Your task to perform on an android device: Clear the shopping cart on ebay.com. Search for lenovo thinkpad on ebay.com, select the first entry, add it to the cart, then select checkout. Image 0: 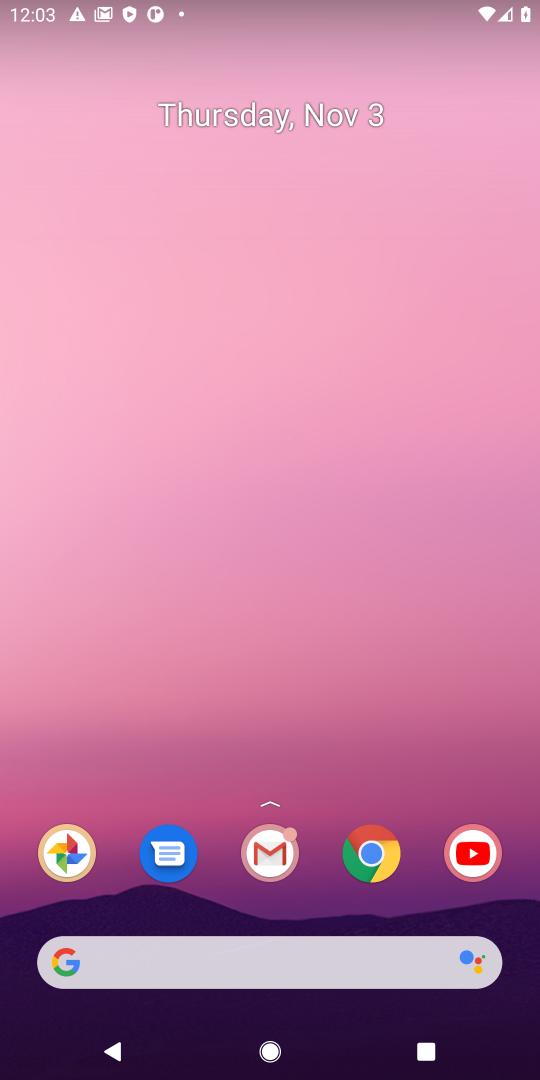
Step 0: click (374, 866)
Your task to perform on an android device: Clear the shopping cart on ebay.com. Search for lenovo thinkpad on ebay.com, select the first entry, add it to the cart, then select checkout. Image 1: 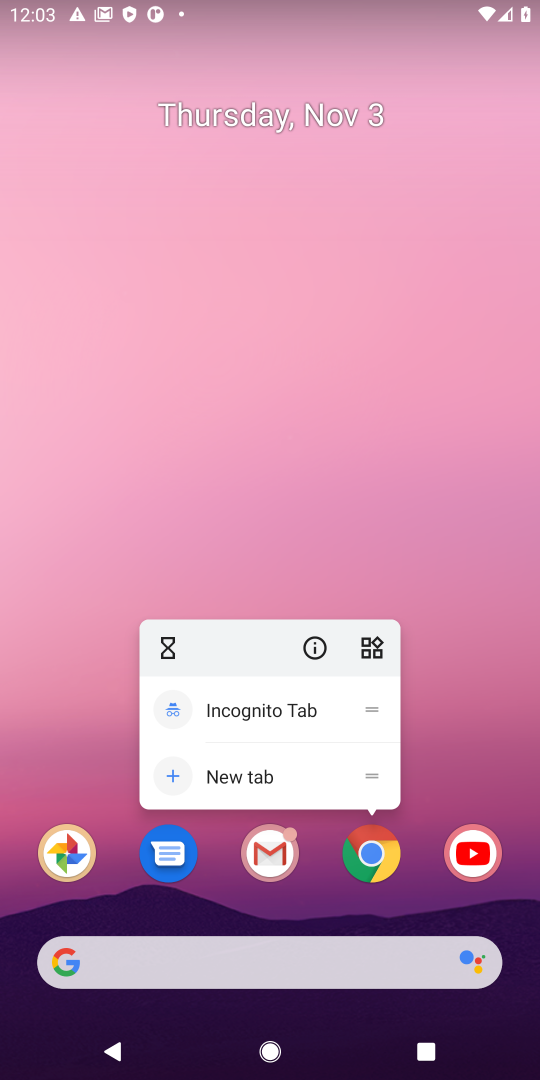
Step 1: click (381, 863)
Your task to perform on an android device: Clear the shopping cart on ebay.com. Search for lenovo thinkpad on ebay.com, select the first entry, add it to the cart, then select checkout. Image 2: 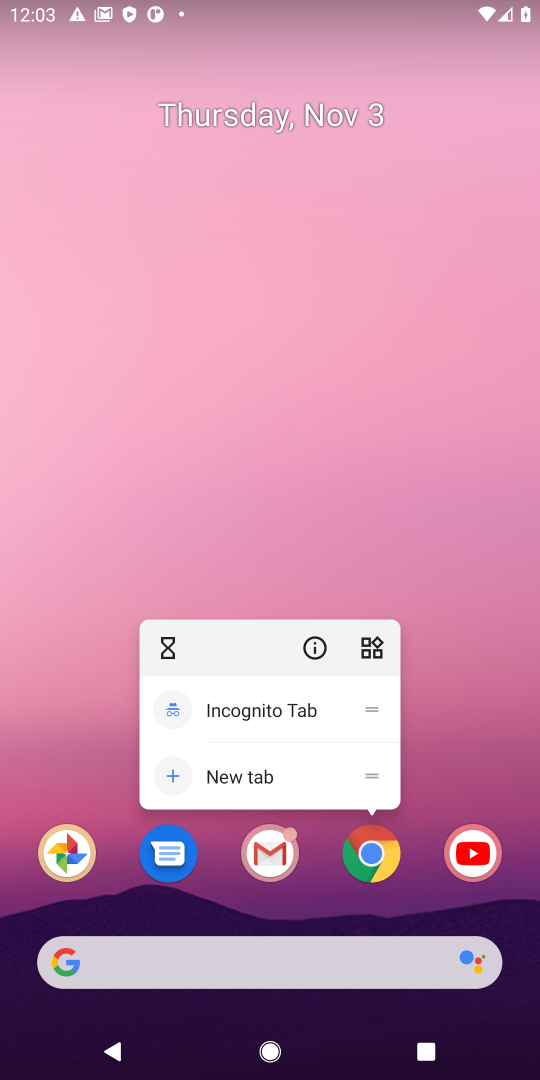
Step 2: click (368, 853)
Your task to perform on an android device: Clear the shopping cart on ebay.com. Search for lenovo thinkpad on ebay.com, select the first entry, add it to the cart, then select checkout. Image 3: 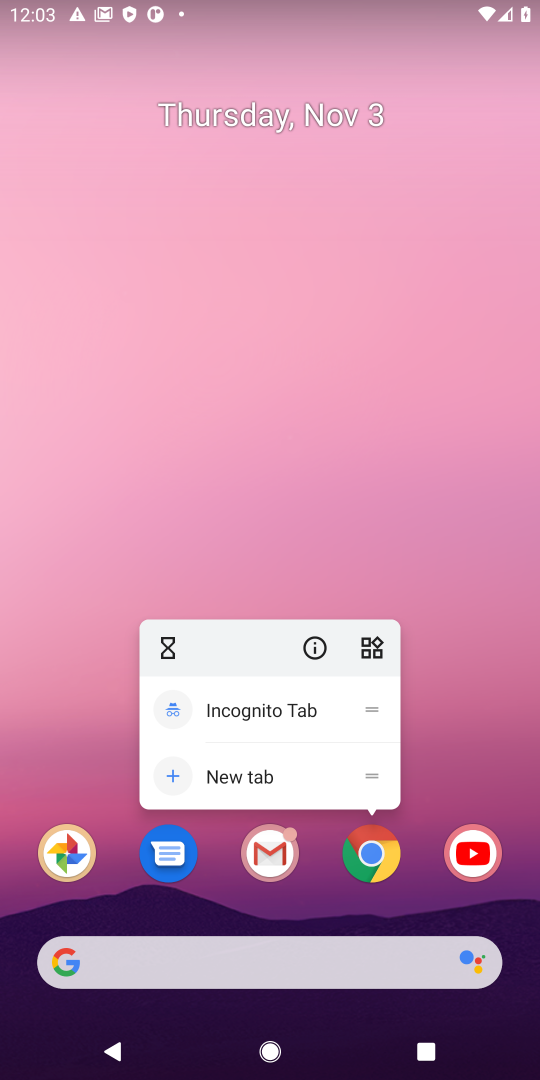
Step 3: click (368, 853)
Your task to perform on an android device: Clear the shopping cart on ebay.com. Search for lenovo thinkpad on ebay.com, select the first entry, add it to the cart, then select checkout. Image 4: 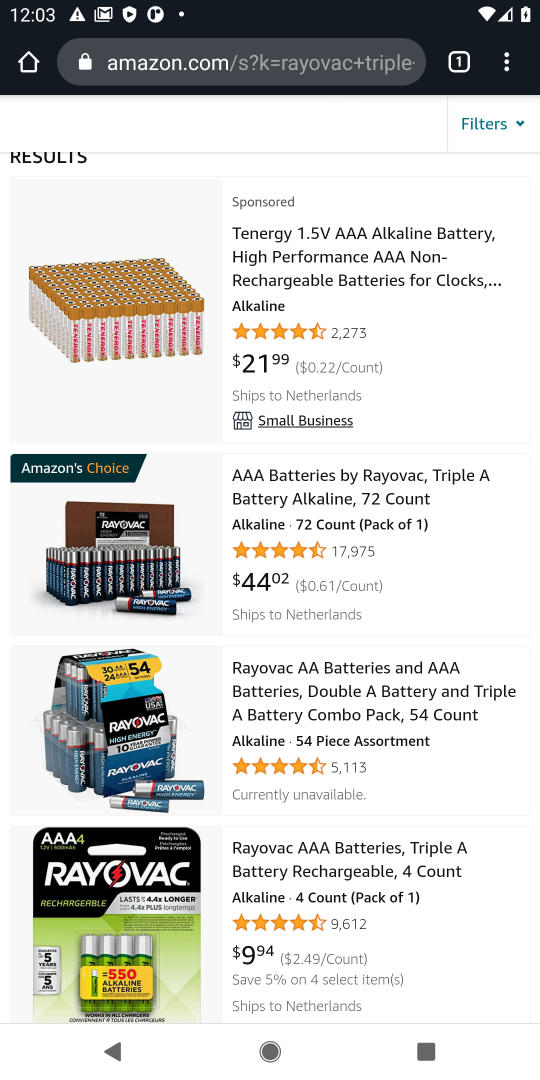
Step 4: click (276, 61)
Your task to perform on an android device: Clear the shopping cart on ebay.com. Search for lenovo thinkpad on ebay.com, select the first entry, add it to the cart, then select checkout. Image 5: 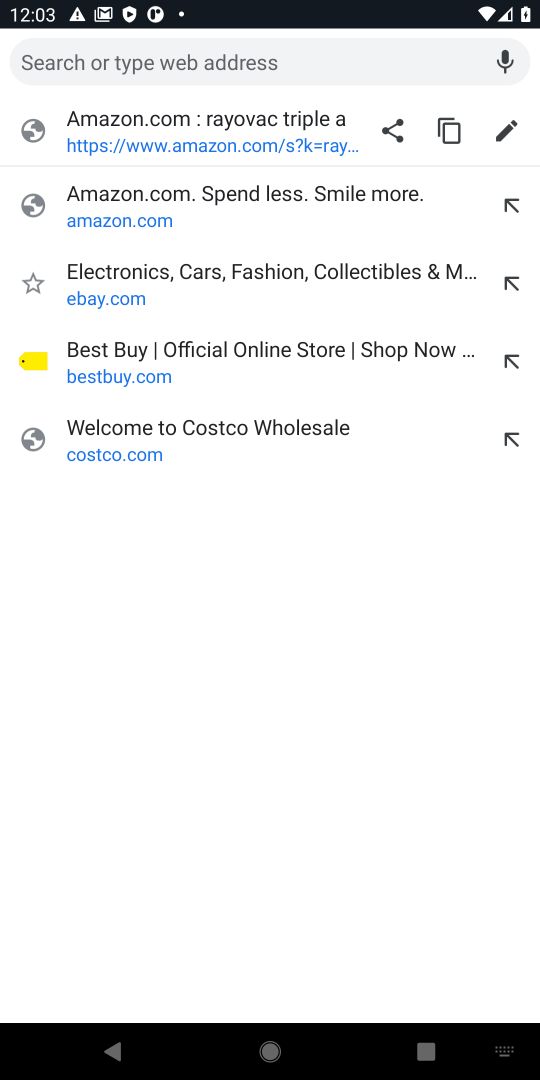
Step 5: click (81, 297)
Your task to perform on an android device: Clear the shopping cart on ebay.com. Search for lenovo thinkpad on ebay.com, select the first entry, add it to the cart, then select checkout. Image 6: 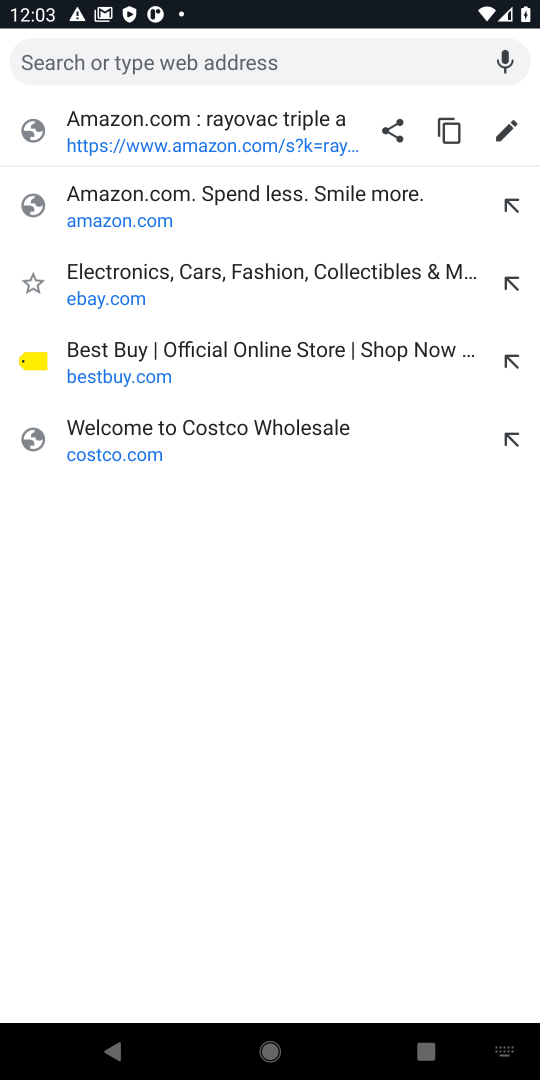
Step 6: click (110, 297)
Your task to perform on an android device: Clear the shopping cart on ebay.com. Search for lenovo thinkpad on ebay.com, select the first entry, add it to the cart, then select checkout. Image 7: 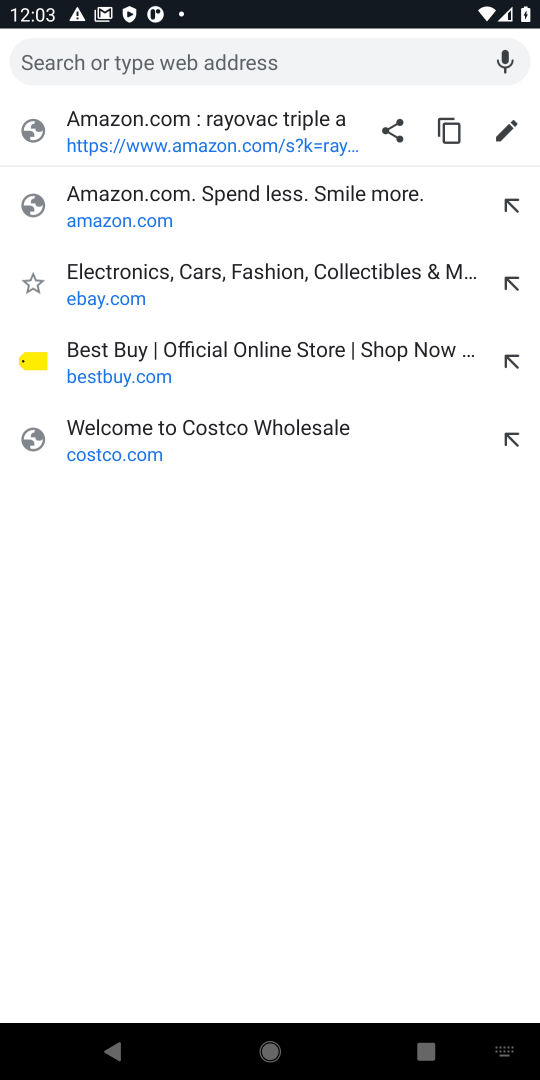
Step 7: click (105, 296)
Your task to perform on an android device: Clear the shopping cart on ebay.com. Search for lenovo thinkpad on ebay.com, select the first entry, add it to the cart, then select checkout. Image 8: 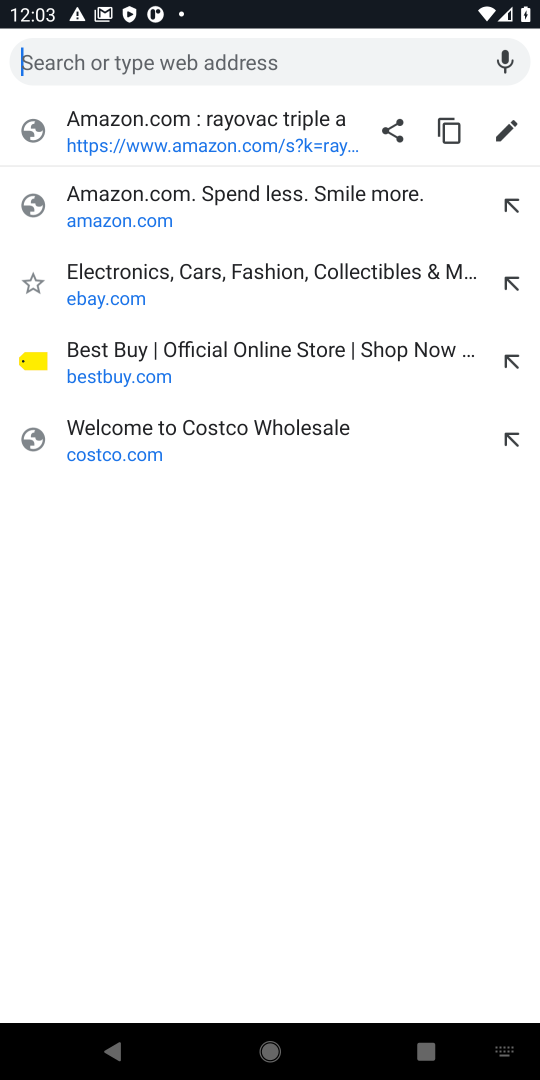
Step 8: click (106, 289)
Your task to perform on an android device: Clear the shopping cart on ebay.com. Search for lenovo thinkpad on ebay.com, select the first entry, add it to the cart, then select checkout. Image 9: 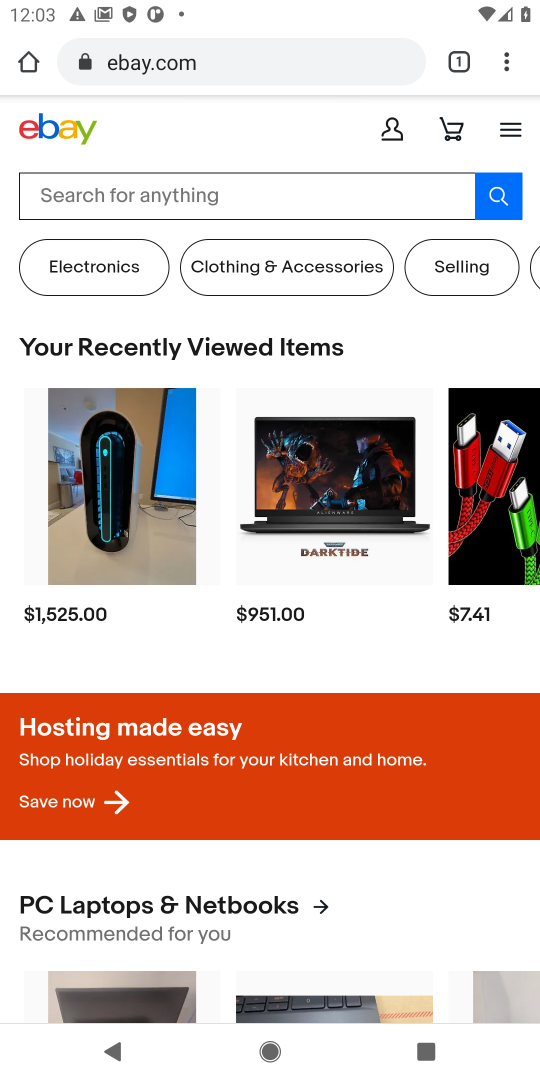
Step 9: click (181, 194)
Your task to perform on an android device: Clear the shopping cart on ebay.com. Search for lenovo thinkpad on ebay.com, select the first entry, add it to the cart, then select checkout. Image 10: 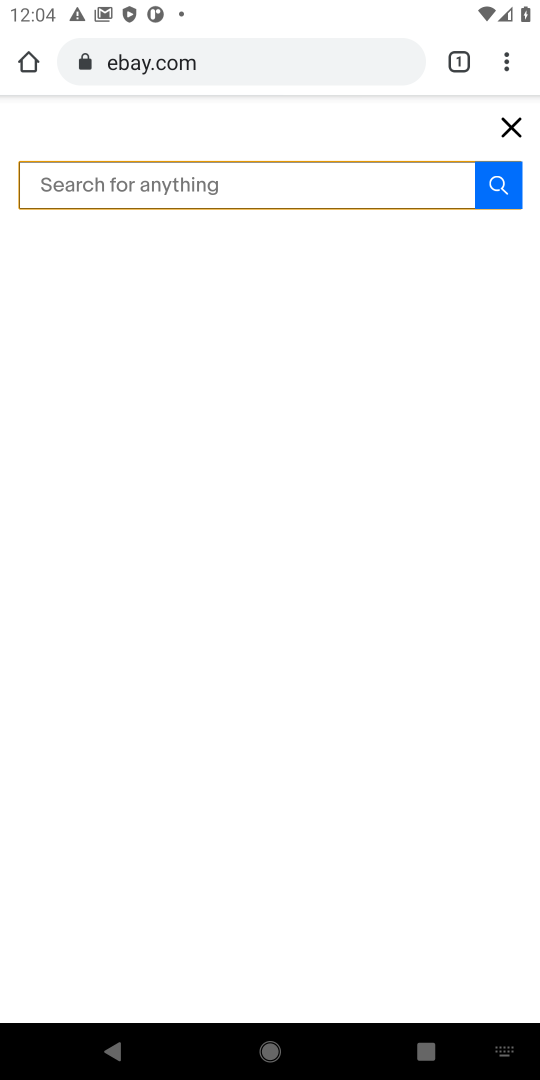
Step 10: type "lenovo thinkpad"
Your task to perform on an android device: Clear the shopping cart on ebay.com. Search for lenovo thinkpad on ebay.com, select the first entry, add it to the cart, then select checkout. Image 11: 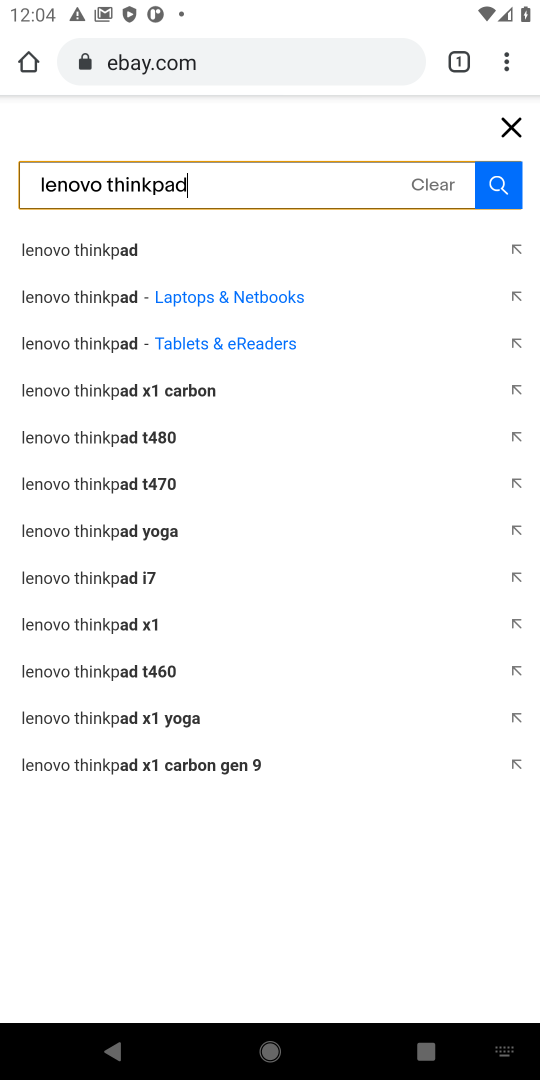
Step 11: press enter
Your task to perform on an android device: Clear the shopping cart on ebay.com. Search for lenovo thinkpad on ebay.com, select the first entry, add it to the cart, then select checkout. Image 12: 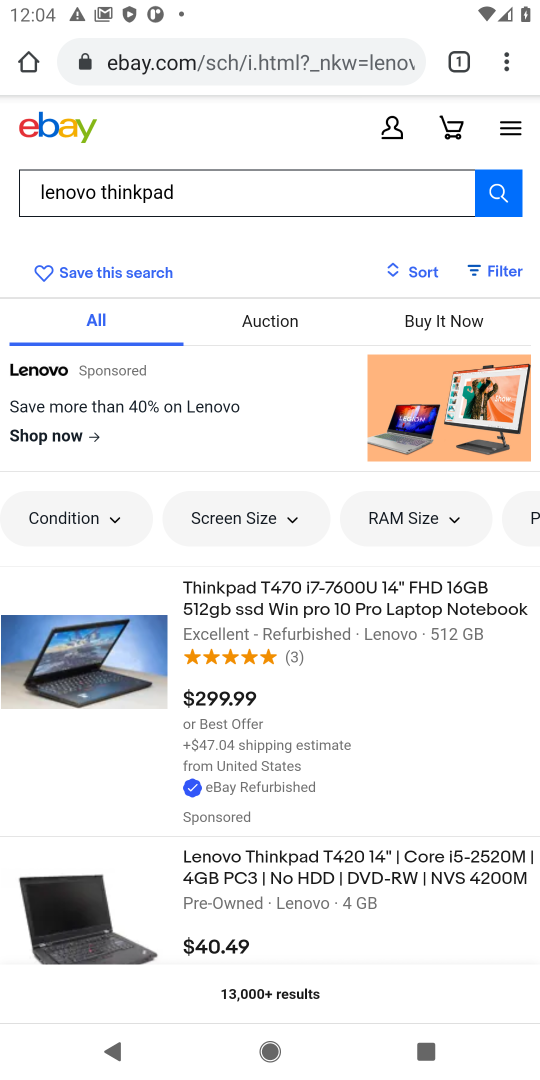
Step 12: click (323, 600)
Your task to perform on an android device: Clear the shopping cart on ebay.com. Search for lenovo thinkpad on ebay.com, select the first entry, add it to the cart, then select checkout. Image 13: 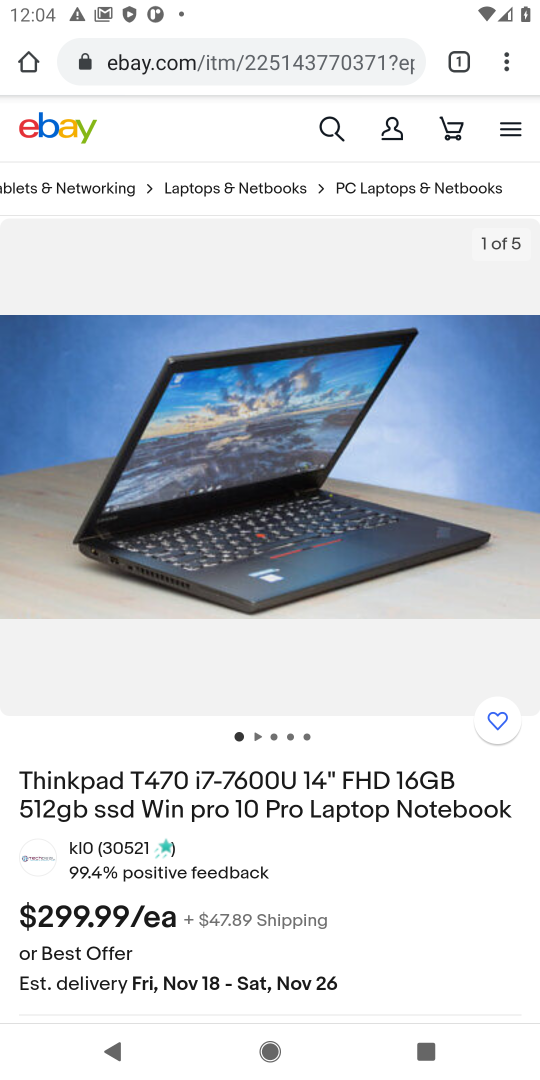
Step 13: drag from (329, 942) to (451, 315)
Your task to perform on an android device: Clear the shopping cart on ebay.com. Search for lenovo thinkpad on ebay.com, select the first entry, add it to the cart, then select checkout. Image 14: 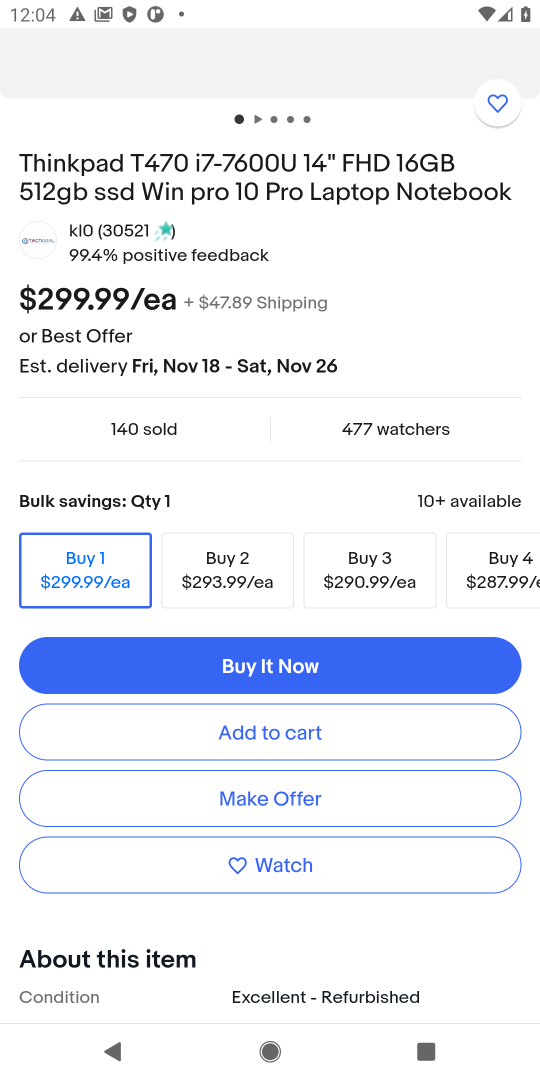
Step 14: click (238, 736)
Your task to perform on an android device: Clear the shopping cart on ebay.com. Search for lenovo thinkpad on ebay.com, select the first entry, add it to the cart, then select checkout. Image 15: 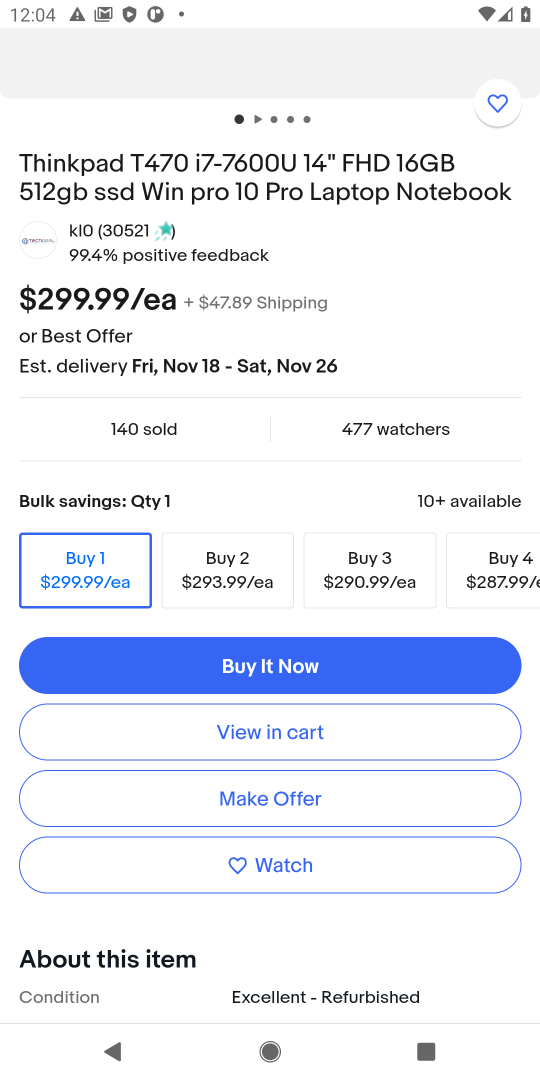
Step 15: click (236, 736)
Your task to perform on an android device: Clear the shopping cart on ebay.com. Search for lenovo thinkpad on ebay.com, select the first entry, add it to the cart, then select checkout. Image 16: 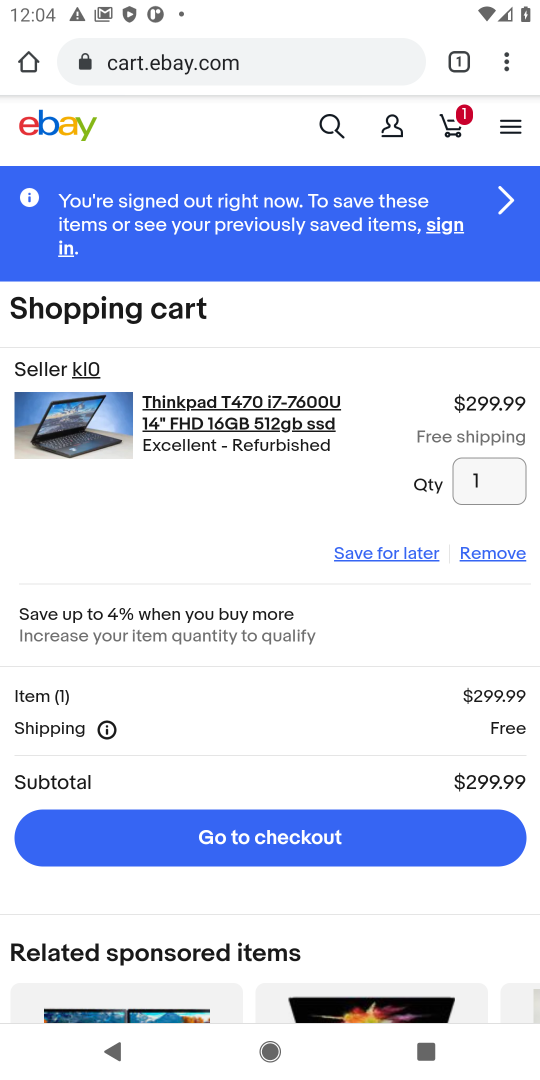
Step 16: drag from (267, 716) to (379, 344)
Your task to perform on an android device: Clear the shopping cart on ebay.com. Search for lenovo thinkpad on ebay.com, select the first entry, add it to the cart, then select checkout. Image 17: 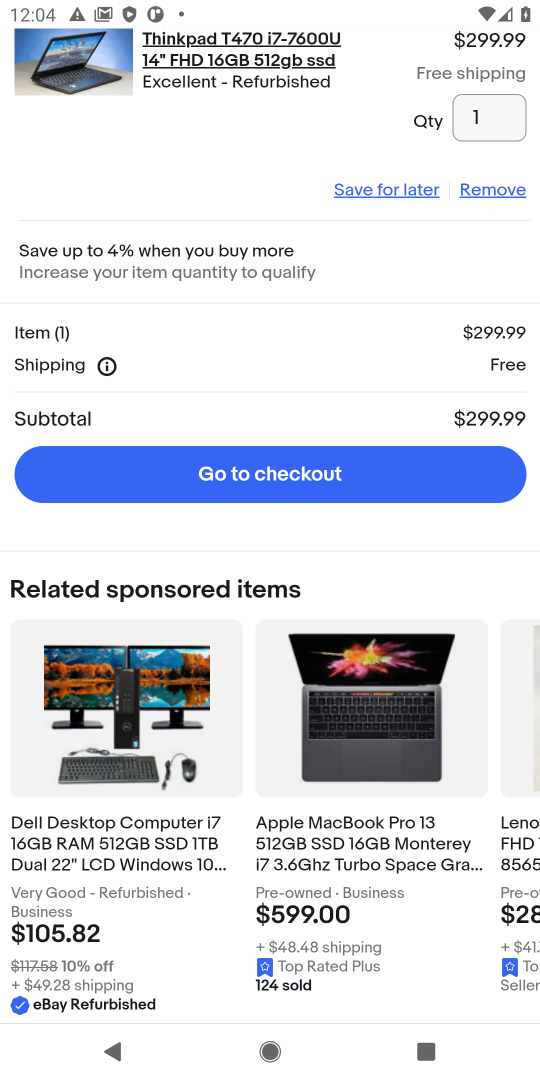
Step 17: drag from (299, 885) to (366, 911)
Your task to perform on an android device: Clear the shopping cart on ebay.com. Search for lenovo thinkpad on ebay.com, select the first entry, add it to the cart, then select checkout. Image 18: 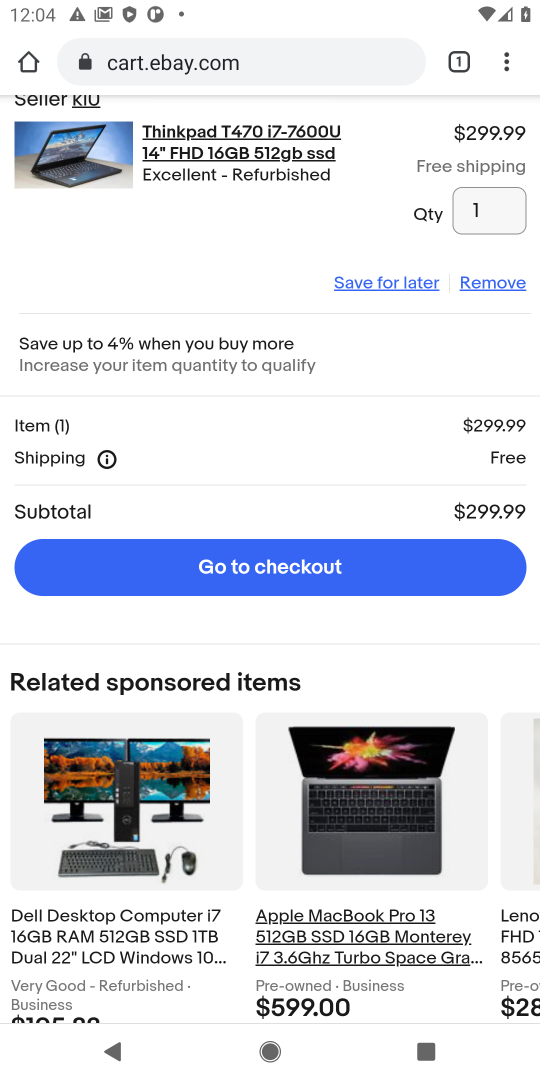
Step 18: click (358, 751)
Your task to perform on an android device: Clear the shopping cart on ebay.com. Search for lenovo thinkpad on ebay.com, select the first entry, add it to the cart, then select checkout. Image 19: 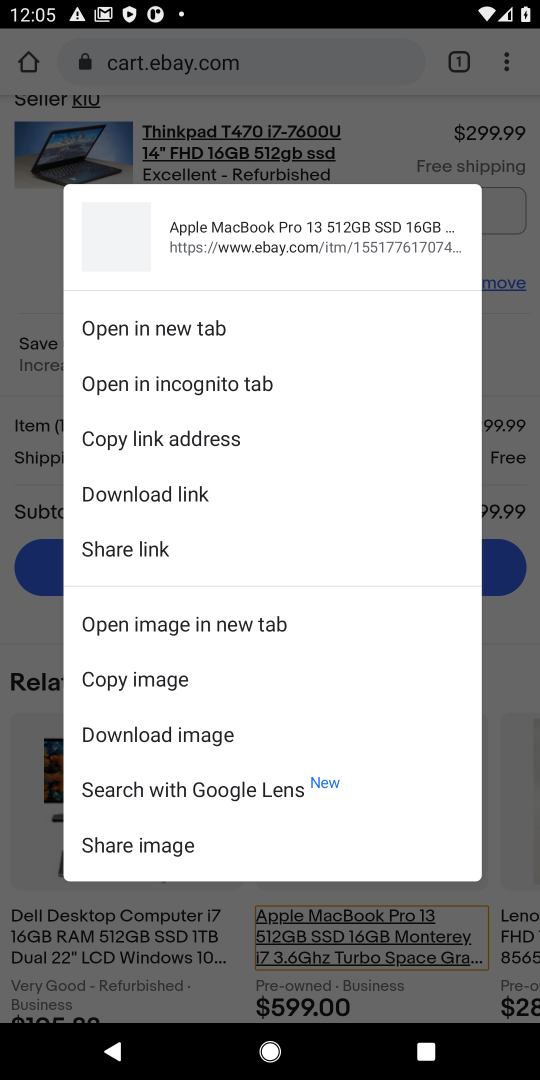
Step 19: drag from (358, 755) to (372, 954)
Your task to perform on an android device: Clear the shopping cart on ebay.com. Search for lenovo thinkpad on ebay.com, select the first entry, add it to the cart, then select checkout. Image 20: 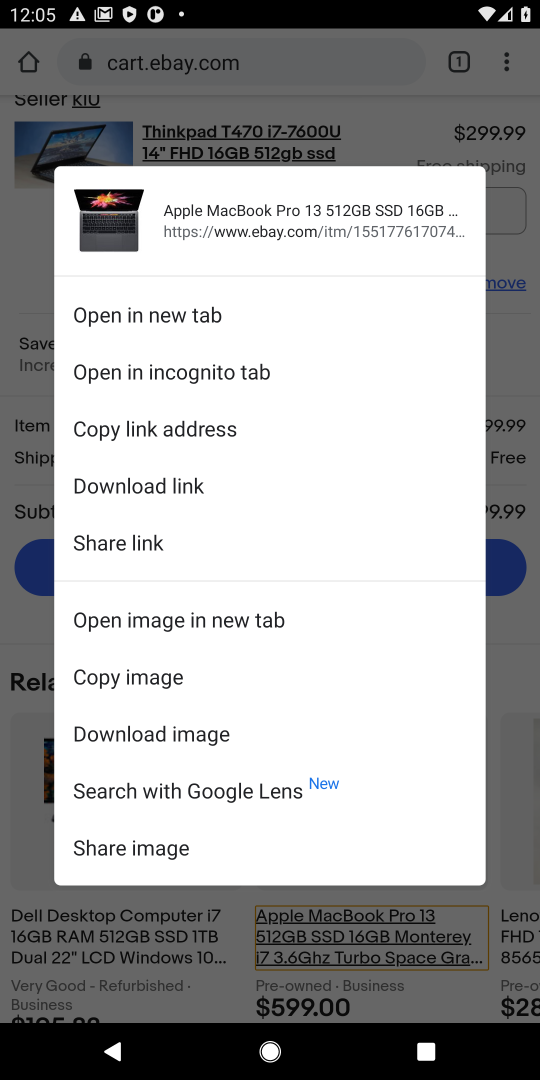
Step 20: click (508, 864)
Your task to perform on an android device: Clear the shopping cart on ebay.com. Search for lenovo thinkpad on ebay.com, select the first entry, add it to the cart, then select checkout. Image 21: 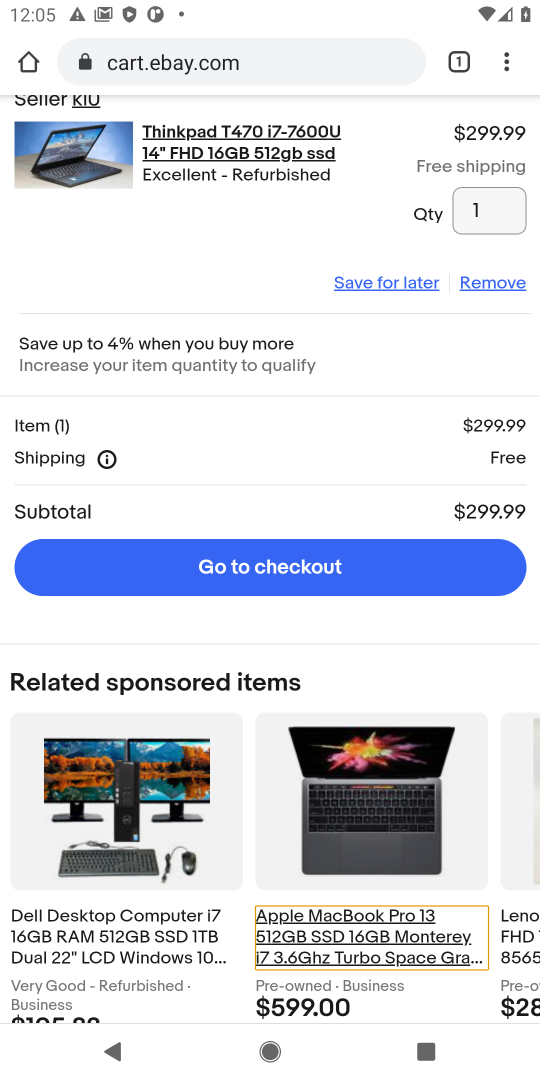
Step 21: task complete